Your task to perform on an android device: Open location settings Image 0: 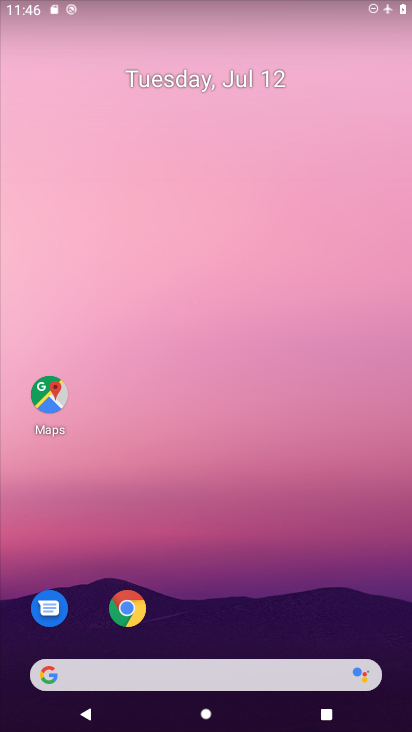
Step 0: drag from (237, 720) to (248, 91)
Your task to perform on an android device: Open location settings Image 1: 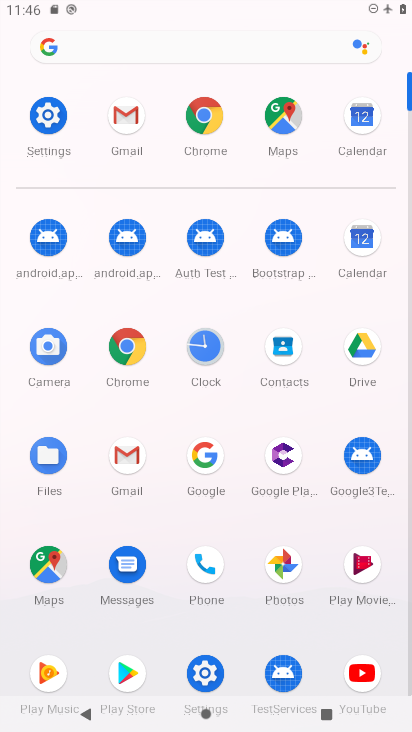
Step 1: click (49, 114)
Your task to perform on an android device: Open location settings Image 2: 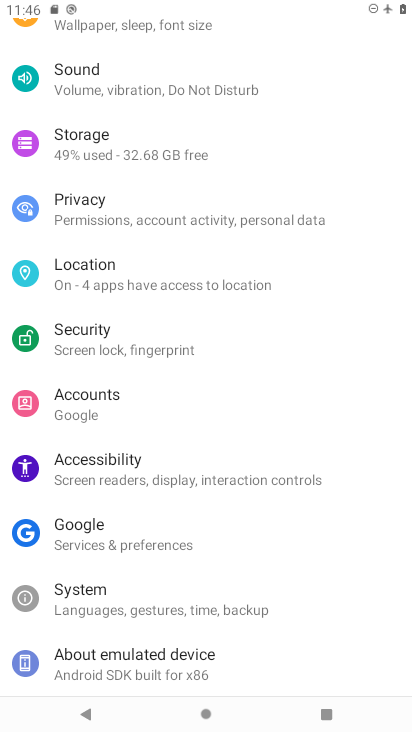
Step 2: click (86, 279)
Your task to perform on an android device: Open location settings Image 3: 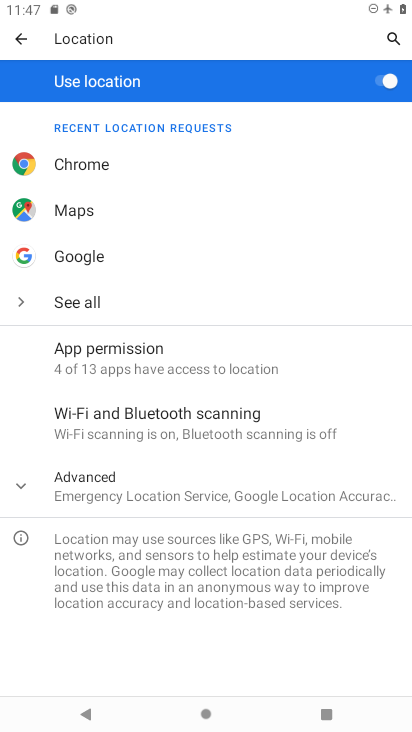
Step 3: task complete